Your task to perform on an android device: Open the Play Movies app and select the watchlist tab. Image 0: 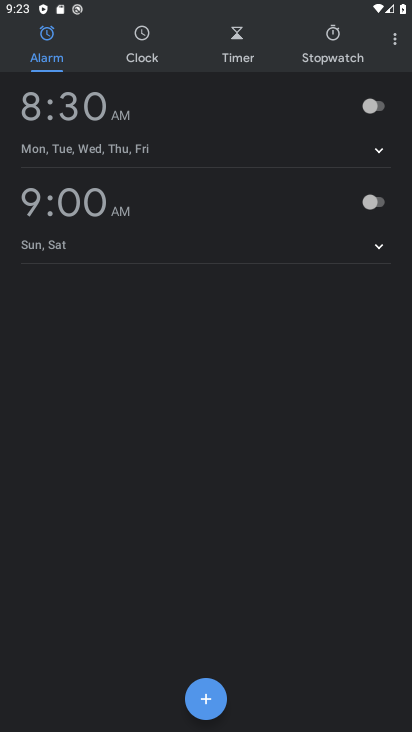
Step 0: task complete